Your task to perform on an android device: turn off picture-in-picture Image 0: 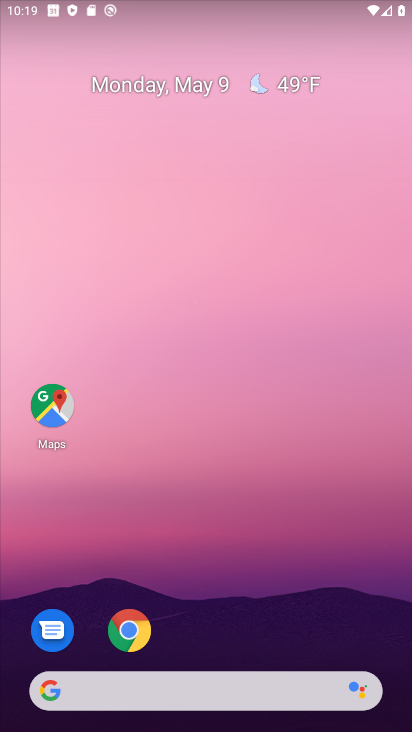
Step 0: click (137, 619)
Your task to perform on an android device: turn off picture-in-picture Image 1: 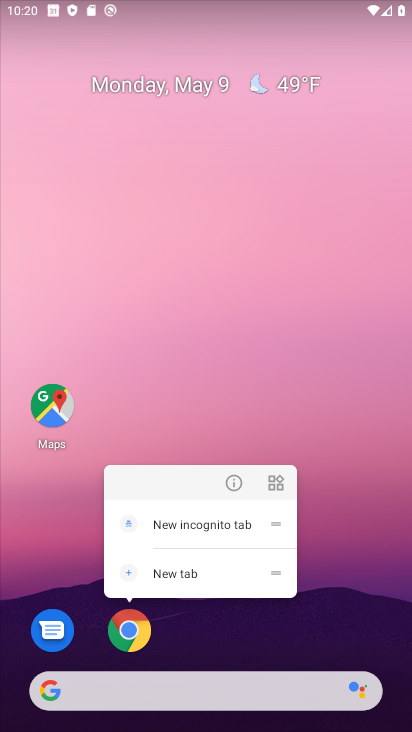
Step 1: click (230, 469)
Your task to perform on an android device: turn off picture-in-picture Image 2: 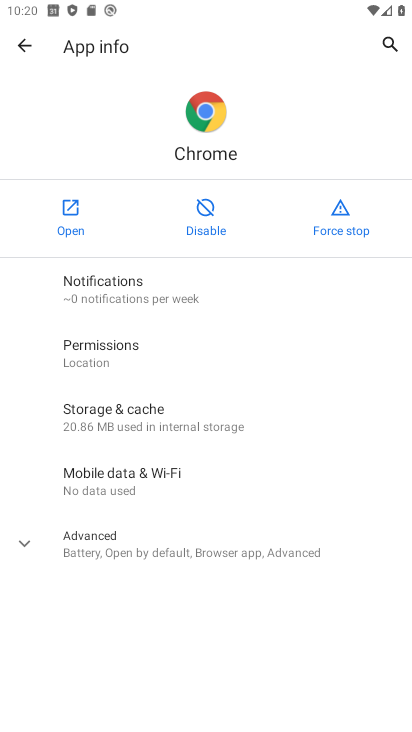
Step 2: click (156, 554)
Your task to perform on an android device: turn off picture-in-picture Image 3: 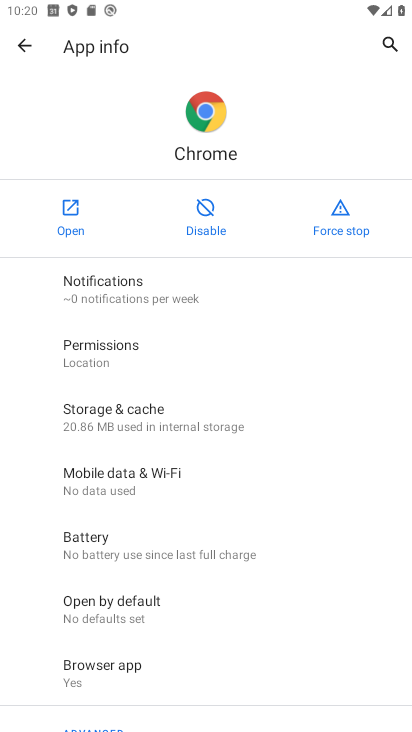
Step 3: drag from (276, 289) to (292, 252)
Your task to perform on an android device: turn off picture-in-picture Image 4: 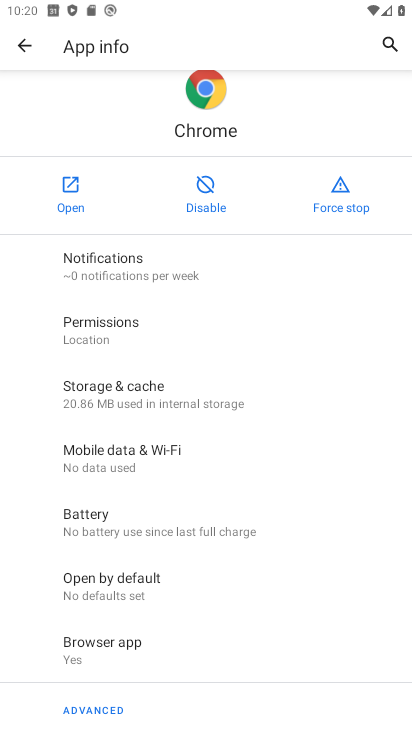
Step 4: drag from (248, 533) to (294, 406)
Your task to perform on an android device: turn off picture-in-picture Image 5: 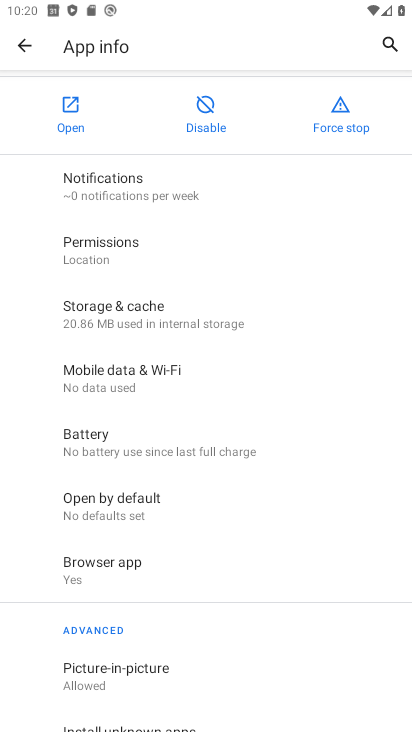
Step 5: click (171, 662)
Your task to perform on an android device: turn off picture-in-picture Image 6: 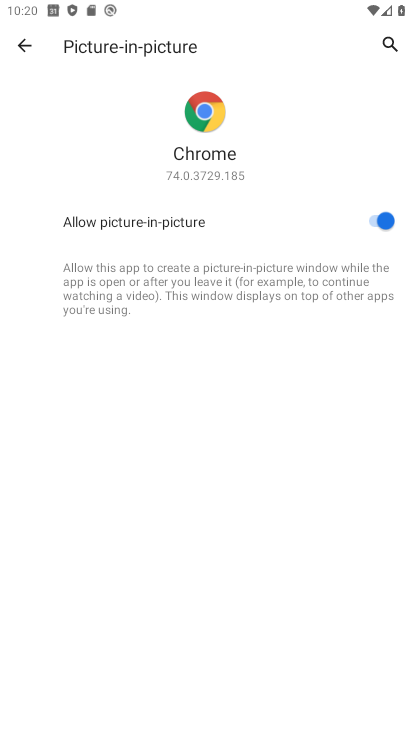
Step 6: click (364, 224)
Your task to perform on an android device: turn off picture-in-picture Image 7: 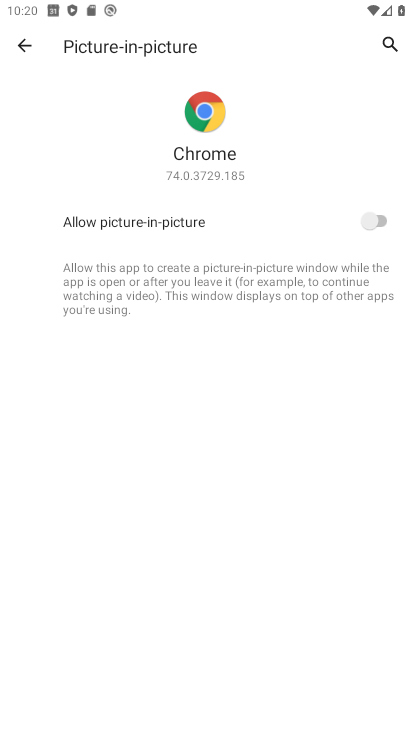
Step 7: task complete